Your task to perform on an android device: turn on data saver in the chrome app Image 0: 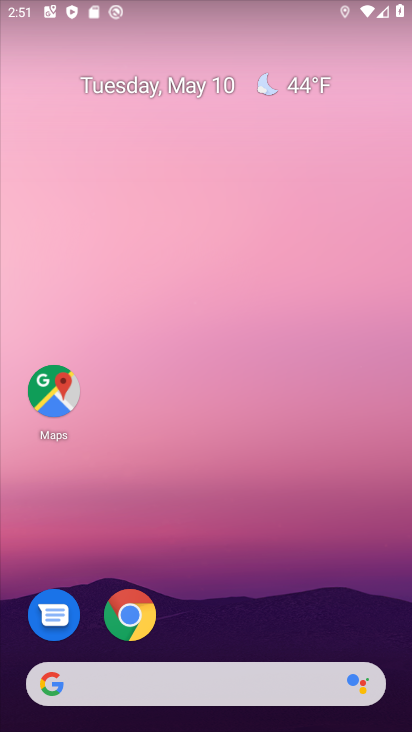
Step 0: click (126, 619)
Your task to perform on an android device: turn on data saver in the chrome app Image 1: 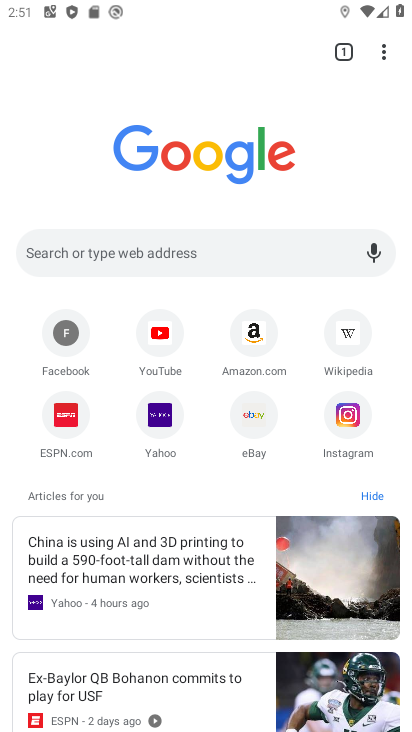
Step 1: click (385, 57)
Your task to perform on an android device: turn on data saver in the chrome app Image 2: 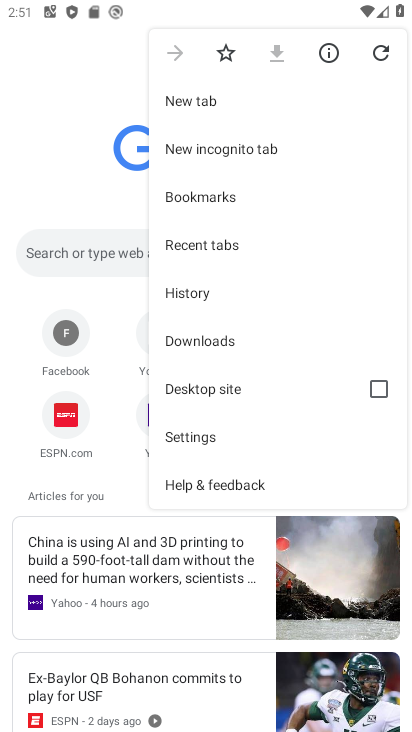
Step 2: click (197, 434)
Your task to perform on an android device: turn on data saver in the chrome app Image 3: 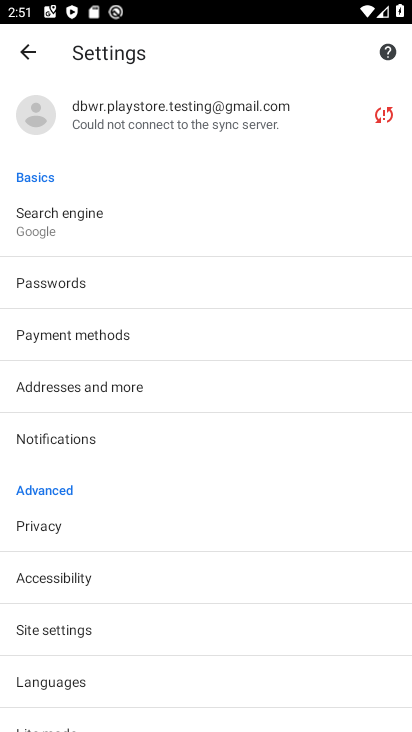
Step 3: drag from (115, 677) to (103, 423)
Your task to perform on an android device: turn on data saver in the chrome app Image 4: 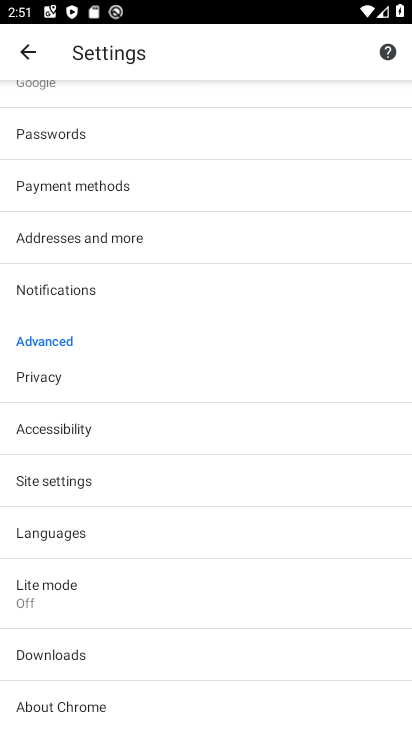
Step 4: click (53, 582)
Your task to perform on an android device: turn on data saver in the chrome app Image 5: 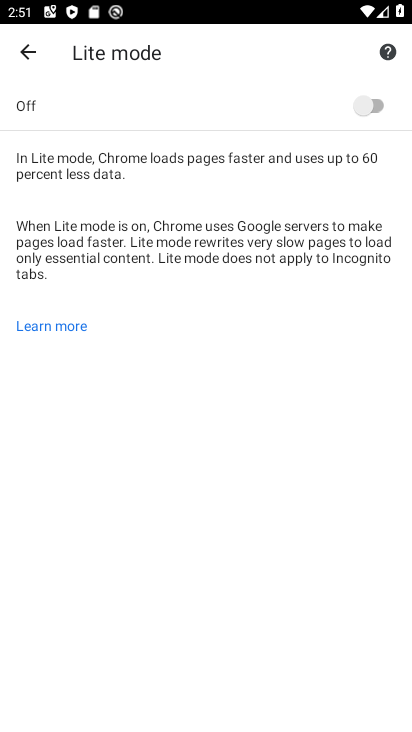
Step 5: click (378, 97)
Your task to perform on an android device: turn on data saver in the chrome app Image 6: 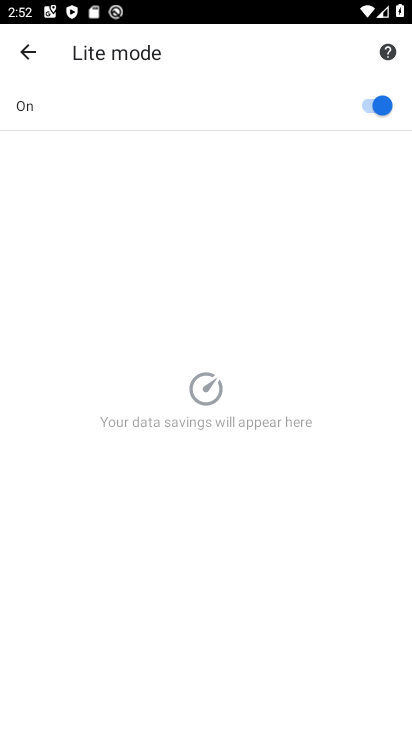
Step 6: task complete